Your task to perform on an android device: turn on the 12-hour format for clock Image 0: 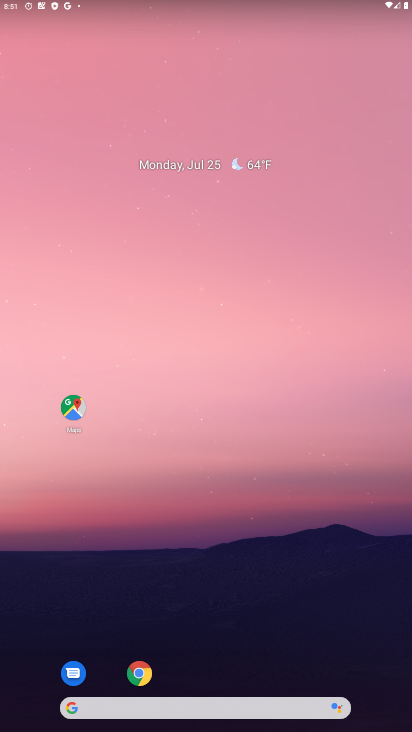
Step 0: drag from (223, 644) to (299, 222)
Your task to perform on an android device: turn on the 12-hour format for clock Image 1: 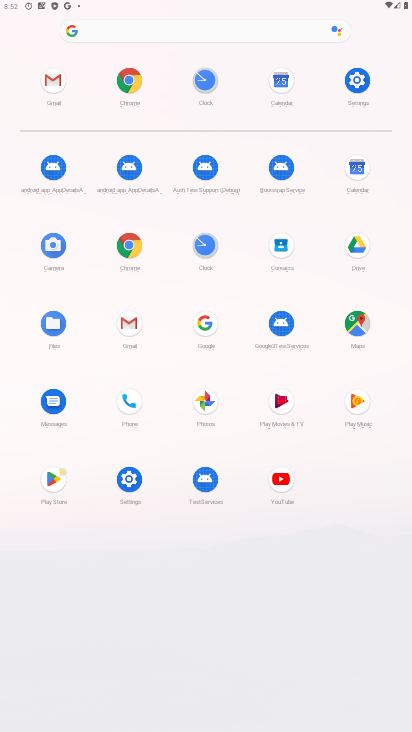
Step 1: click (204, 235)
Your task to perform on an android device: turn on the 12-hour format for clock Image 2: 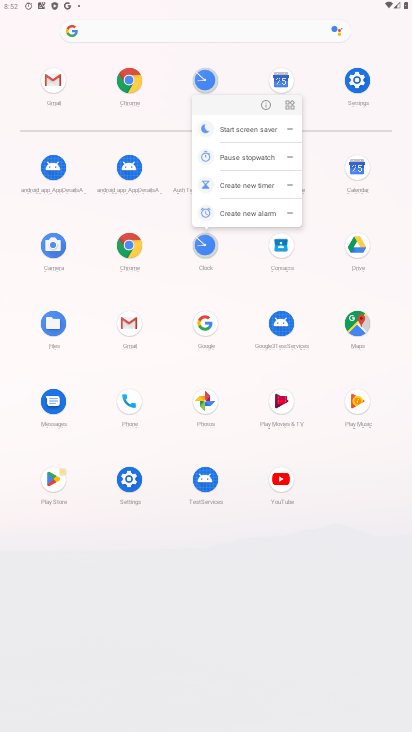
Step 2: click (264, 108)
Your task to perform on an android device: turn on the 12-hour format for clock Image 3: 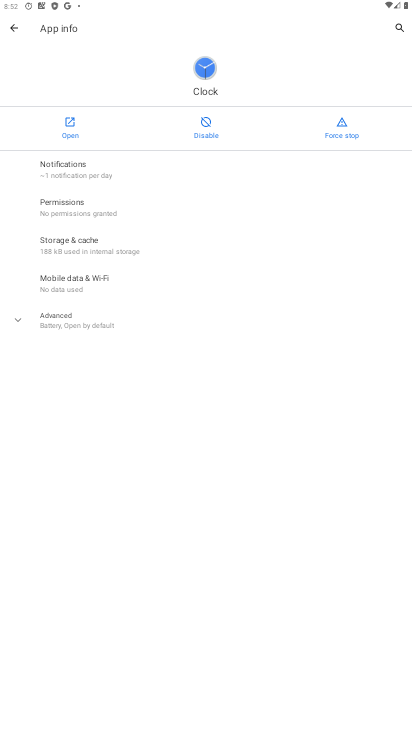
Step 3: click (61, 115)
Your task to perform on an android device: turn on the 12-hour format for clock Image 4: 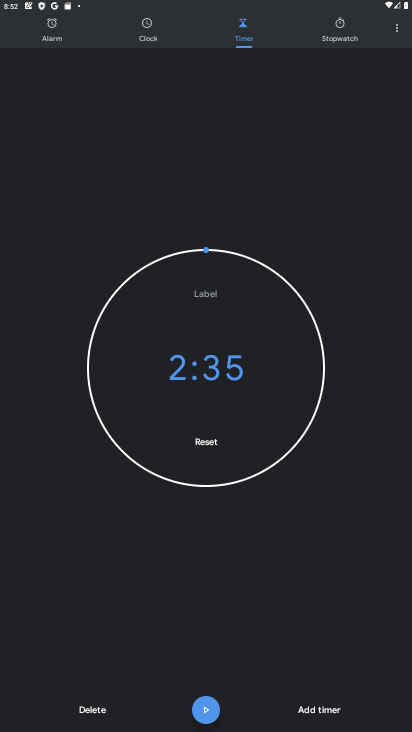
Step 4: drag from (245, 537) to (271, 281)
Your task to perform on an android device: turn on the 12-hour format for clock Image 5: 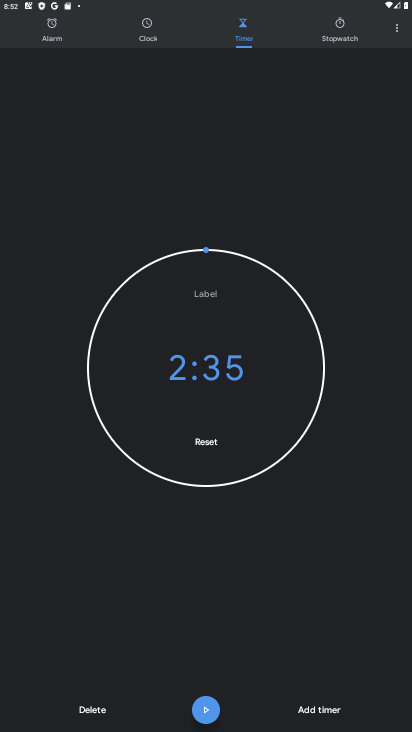
Step 5: click (400, 22)
Your task to perform on an android device: turn on the 12-hour format for clock Image 6: 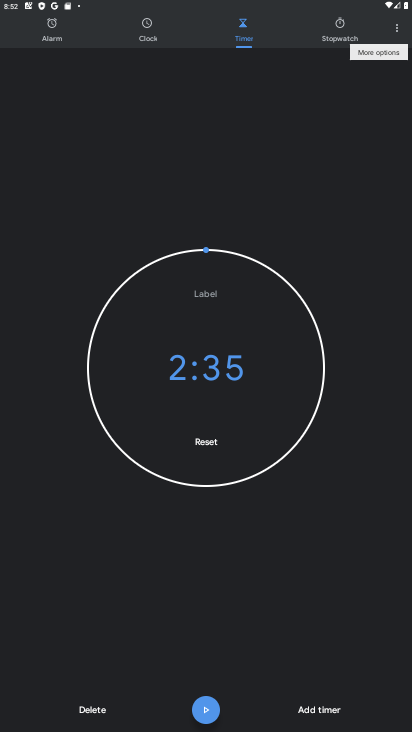
Step 6: click (397, 30)
Your task to perform on an android device: turn on the 12-hour format for clock Image 7: 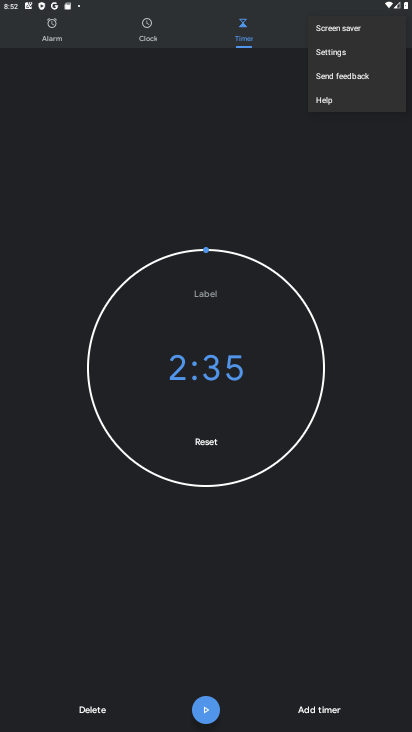
Step 7: click (327, 50)
Your task to perform on an android device: turn on the 12-hour format for clock Image 8: 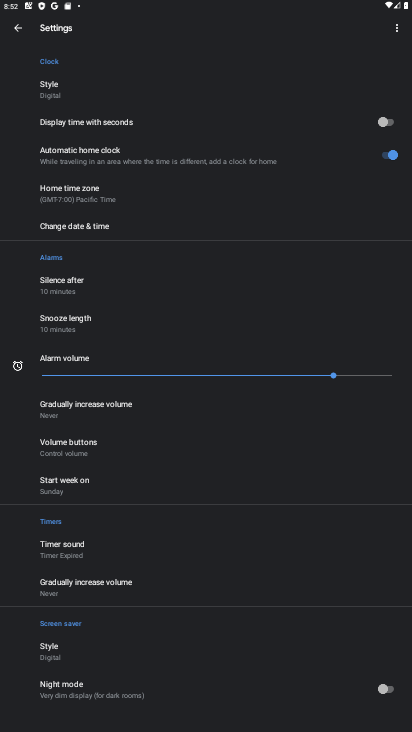
Step 8: drag from (196, 594) to (315, 250)
Your task to perform on an android device: turn on the 12-hour format for clock Image 9: 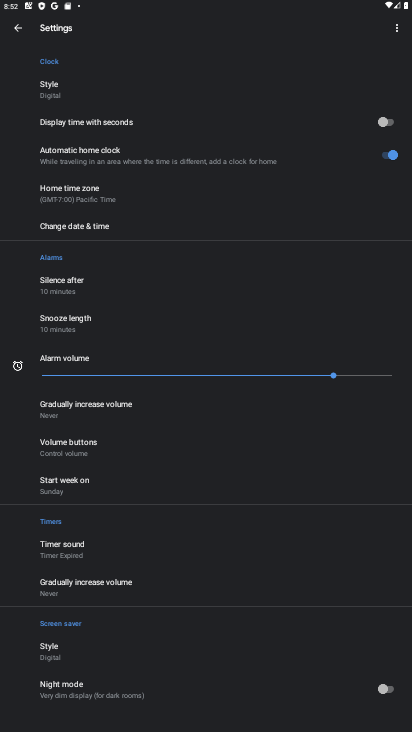
Step 9: drag from (161, 599) to (263, 273)
Your task to perform on an android device: turn on the 12-hour format for clock Image 10: 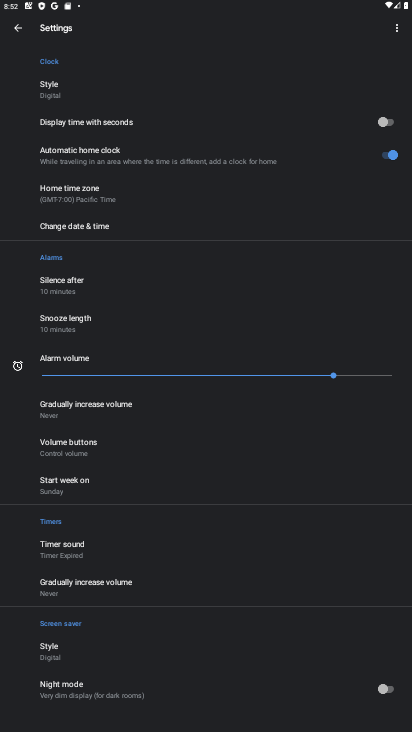
Step 10: click (80, 224)
Your task to perform on an android device: turn on the 12-hour format for clock Image 11: 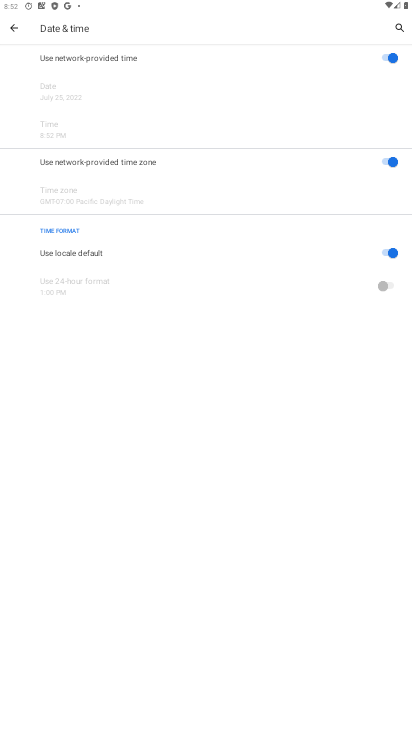
Step 11: task complete